Your task to perform on an android device: Open calendar and show me the second week of next month Image 0: 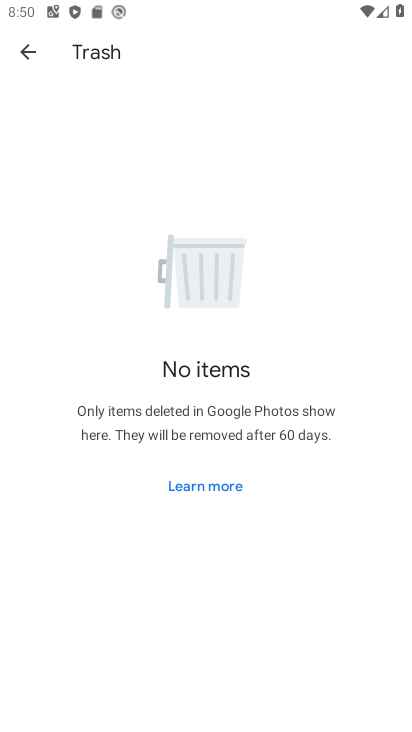
Step 0: press home button
Your task to perform on an android device: Open calendar and show me the second week of next month Image 1: 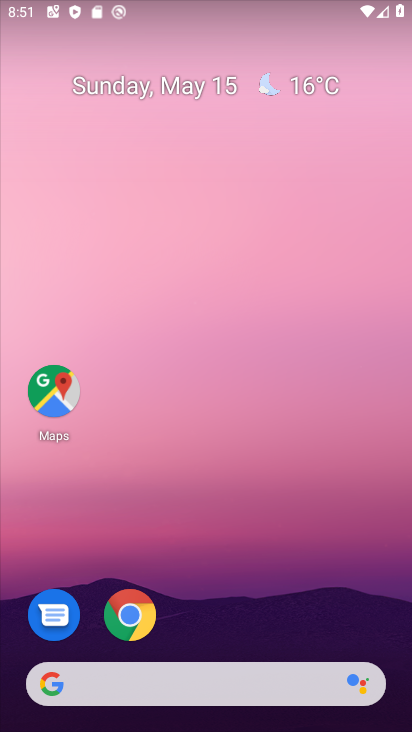
Step 1: drag from (270, 613) to (290, 102)
Your task to perform on an android device: Open calendar and show me the second week of next month Image 2: 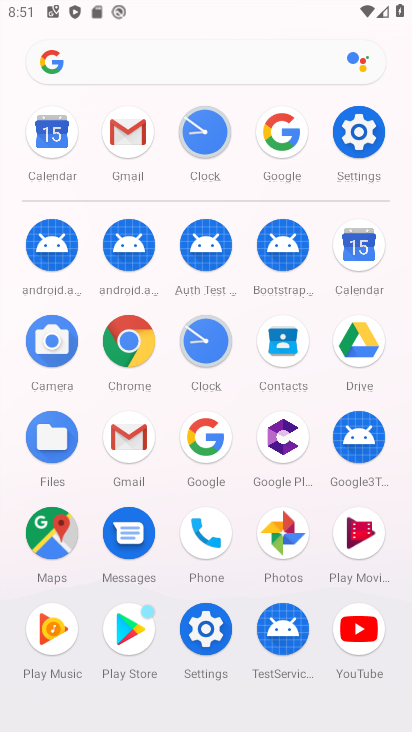
Step 2: click (352, 234)
Your task to perform on an android device: Open calendar and show me the second week of next month Image 3: 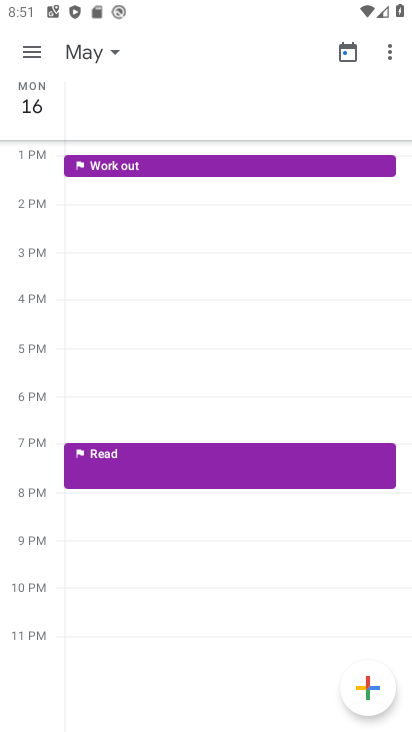
Step 3: click (31, 47)
Your task to perform on an android device: Open calendar and show me the second week of next month Image 4: 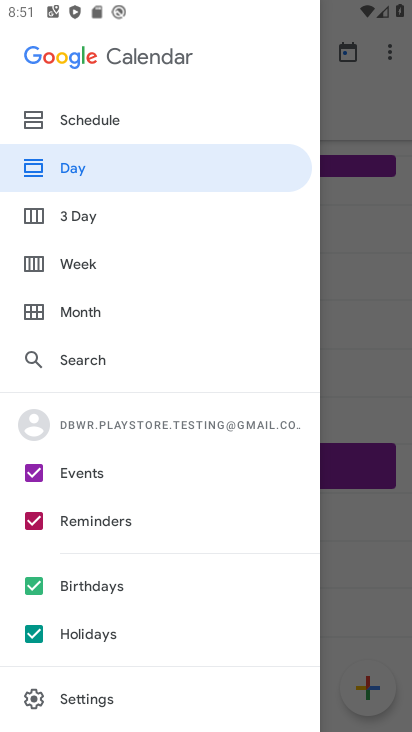
Step 4: click (120, 256)
Your task to perform on an android device: Open calendar and show me the second week of next month Image 5: 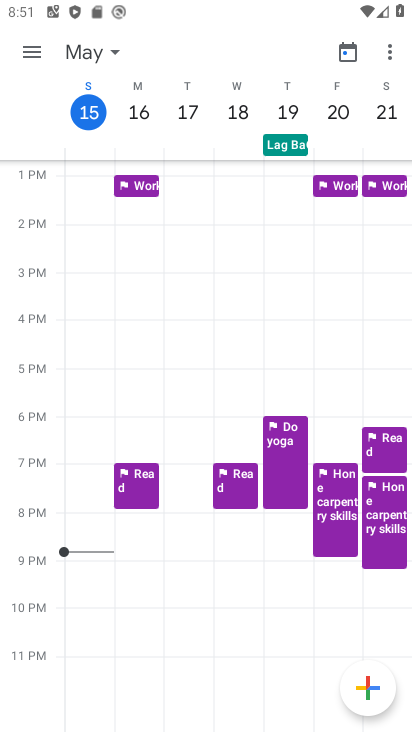
Step 5: click (103, 51)
Your task to perform on an android device: Open calendar and show me the second week of next month Image 6: 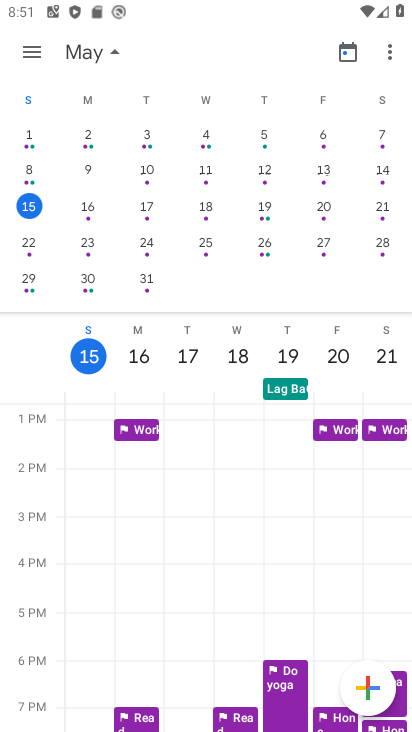
Step 6: drag from (374, 243) to (0, 106)
Your task to perform on an android device: Open calendar and show me the second week of next month Image 7: 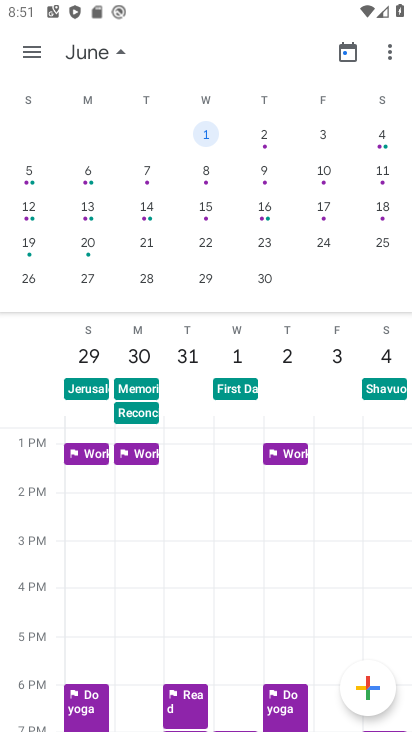
Step 7: click (81, 211)
Your task to perform on an android device: Open calendar and show me the second week of next month Image 8: 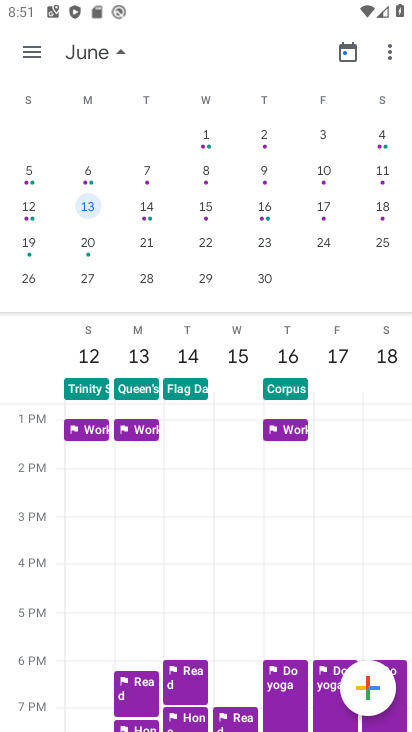
Step 8: task complete